Your task to perform on an android device: find which apps use the phone's location Image 0: 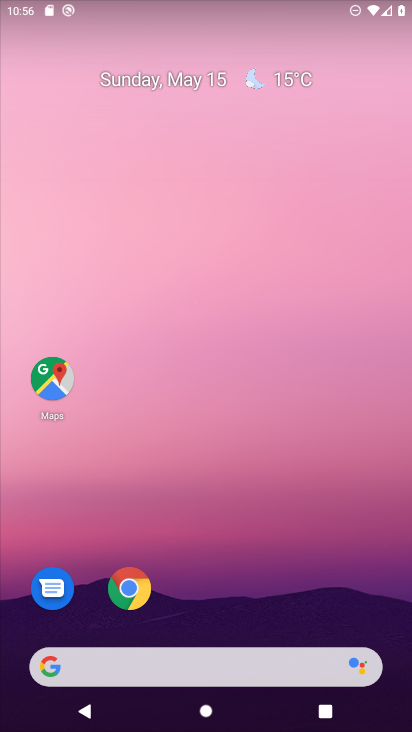
Step 0: drag from (248, 618) to (349, 0)
Your task to perform on an android device: find which apps use the phone's location Image 1: 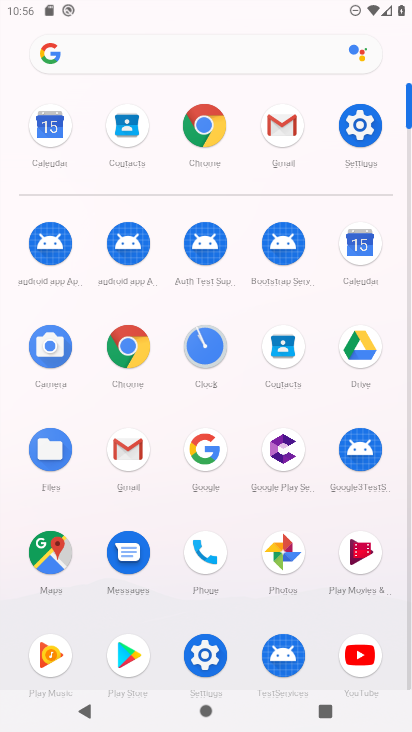
Step 1: click (354, 146)
Your task to perform on an android device: find which apps use the phone's location Image 2: 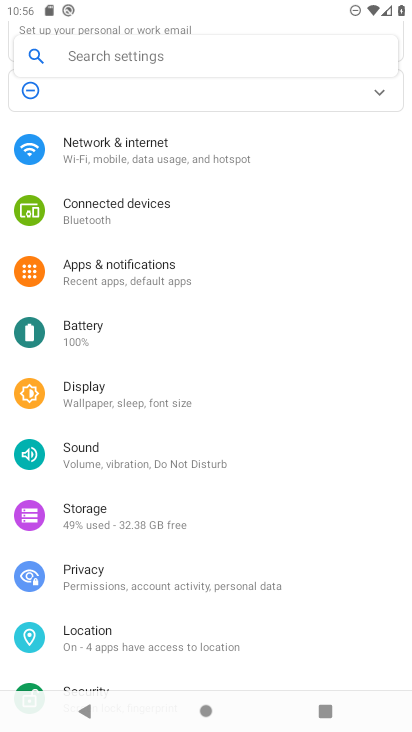
Step 2: click (111, 655)
Your task to perform on an android device: find which apps use the phone's location Image 3: 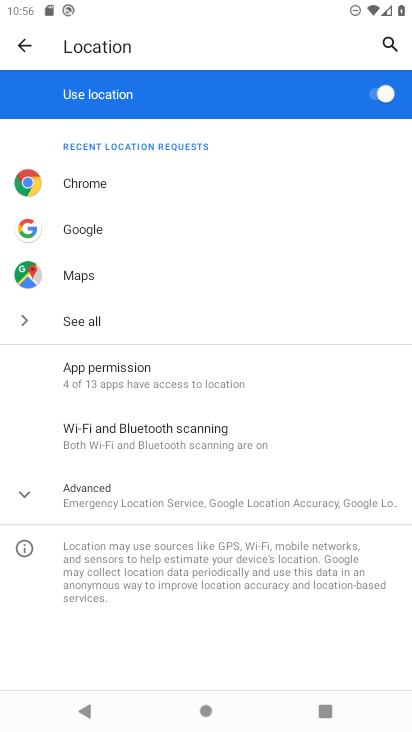
Step 3: click (89, 374)
Your task to perform on an android device: find which apps use the phone's location Image 4: 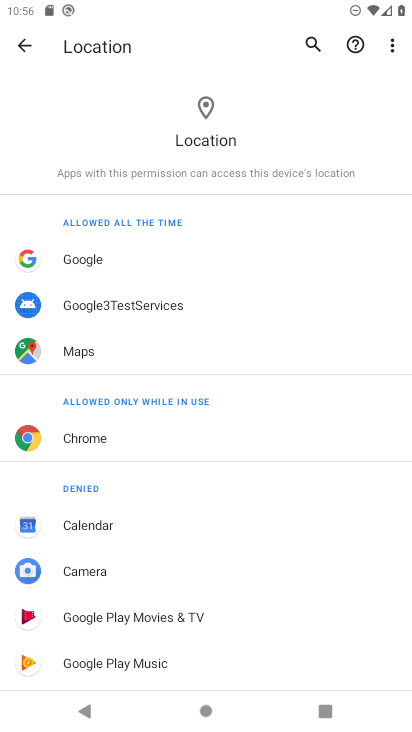
Step 4: task complete